Your task to perform on an android device: remove spam from my inbox in the gmail app Image 0: 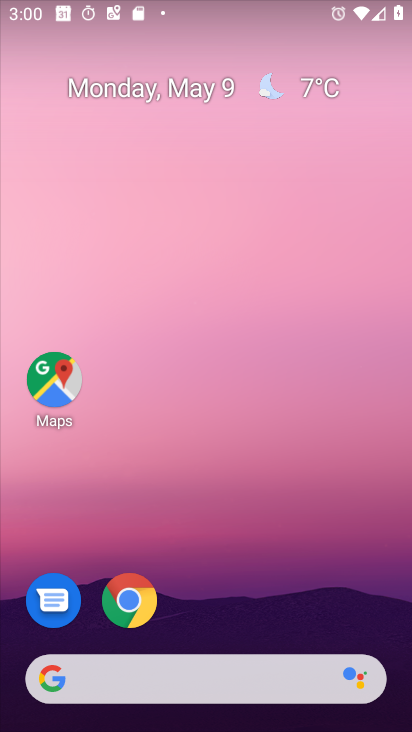
Step 0: drag from (217, 669) to (153, 74)
Your task to perform on an android device: remove spam from my inbox in the gmail app Image 1: 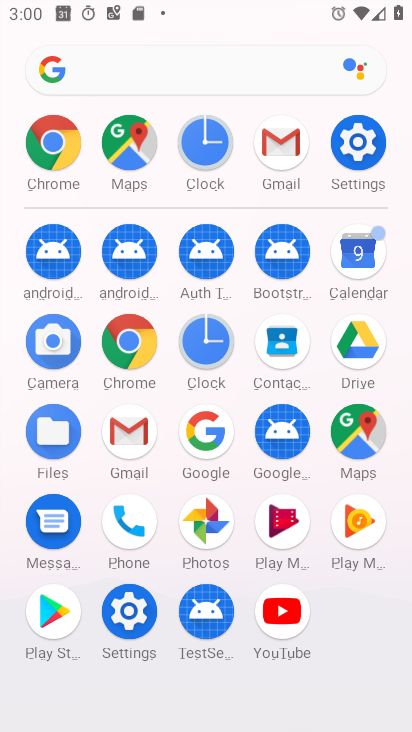
Step 1: click (290, 151)
Your task to perform on an android device: remove spam from my inbox in the gmail app Image 2: 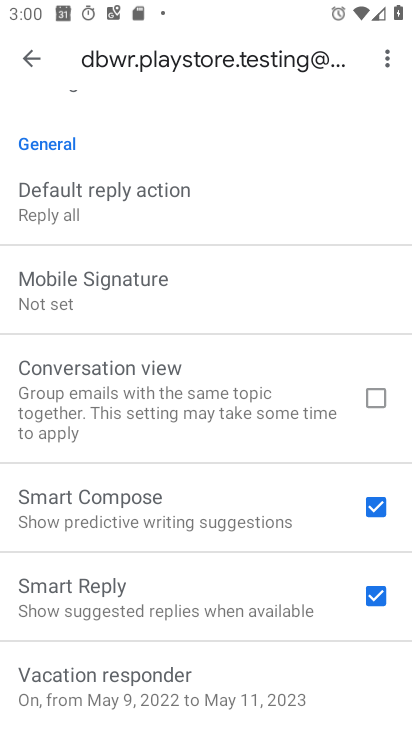
Step 2: click (31, 56)
Your task to perform on an android device: remove spam from my inbox in the gmail app Image 3: 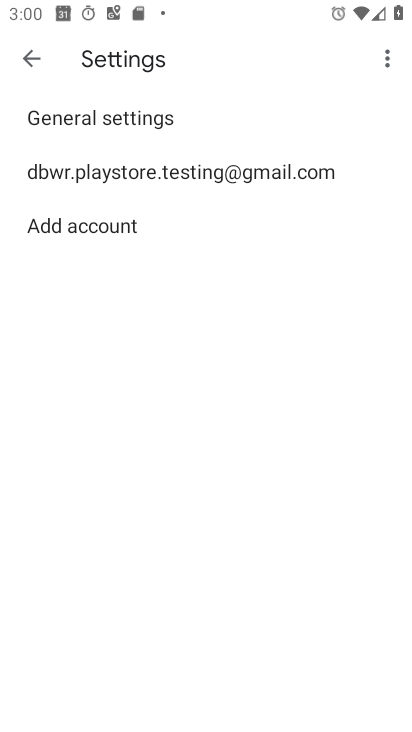
Step 3: click (34, 63)
Your task to perform on an android device: remove spam from my inbox in the gmail app Image 4: 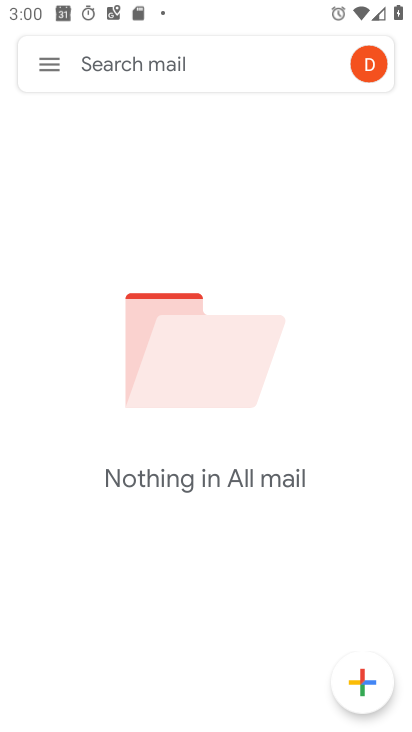
Step 4: click (37, 69)
Your task to perform on an android device: remove spam from my inbox in the gmail app Image 5: 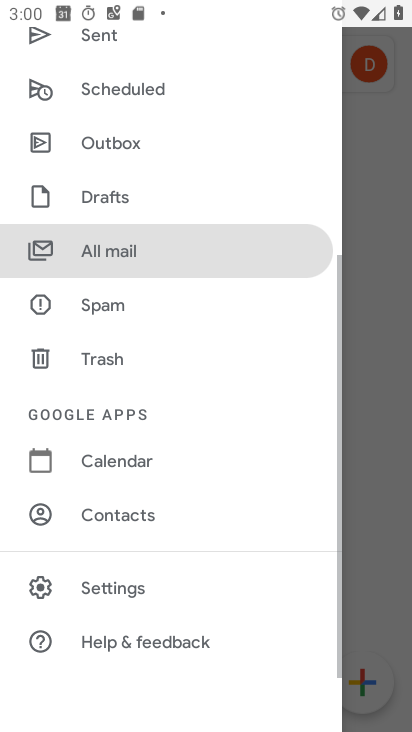
Step 5: click (163, 306)
Your task to perform on an android device: remove spam from my inbox in the gmail app Image 6: 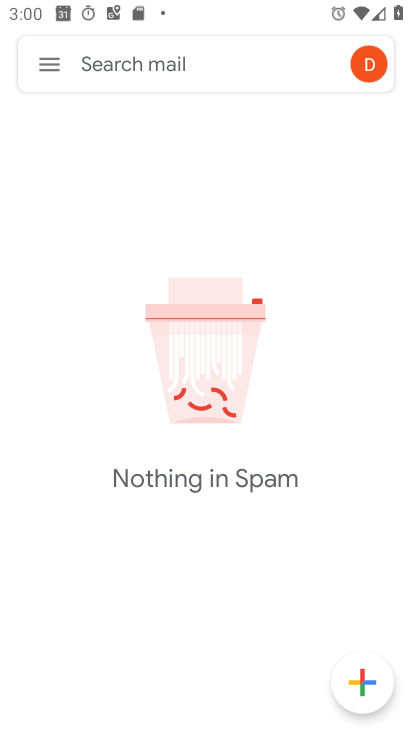
Step 6: task complete